Your task to perform on an android device: Open sound settings Image 0: 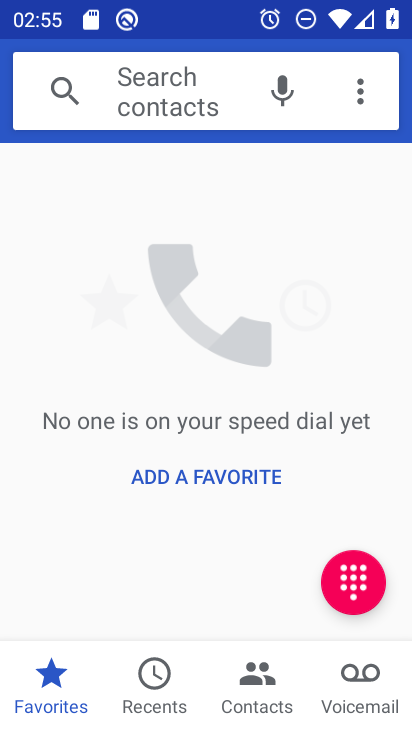
Step 0: press home button
Your task to perform on an android device: Open sound settings Image 1: 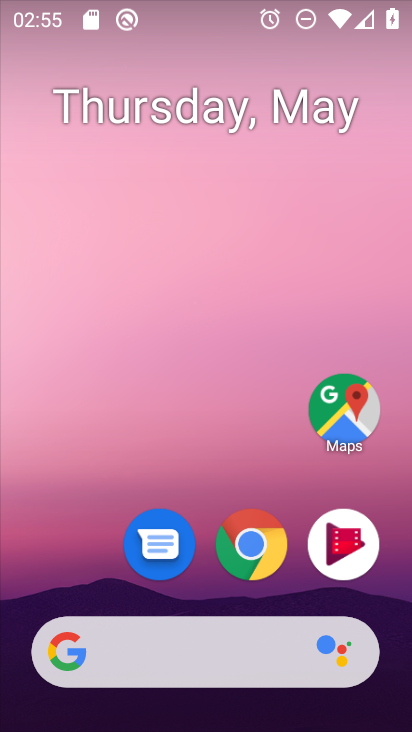
Step 1: drag from (32, 575) to (24, 146)
Your task to perform on an android device: Open sound settings Image 2: 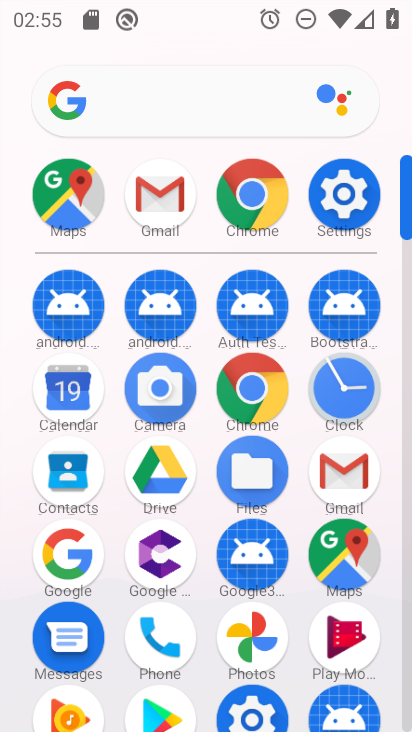
Step 2: drag from (105, 513) to (108, 283)
Your task to perform on an android device: Open sound settings Image 3: 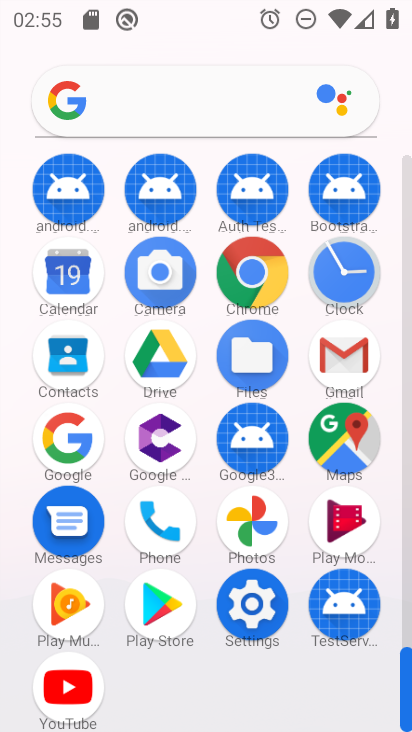
Step 3: click (240, 639)
Your task to perform on an android device: Open sound settings Image 4: 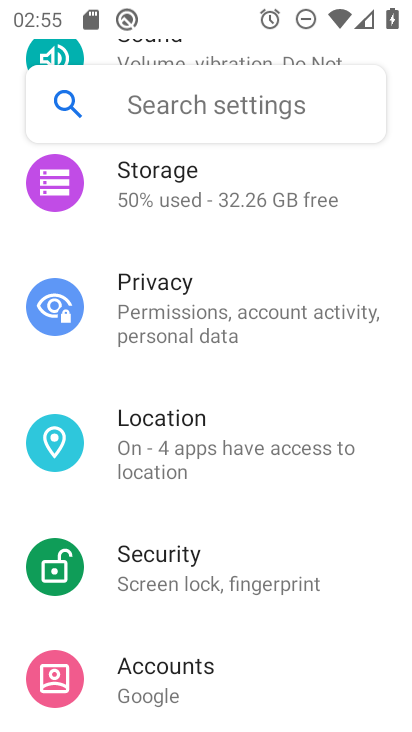
Step 4: drag from (351, 376) to (351, 467)
Your task to perform on an android device: Open sound settings Image 5: 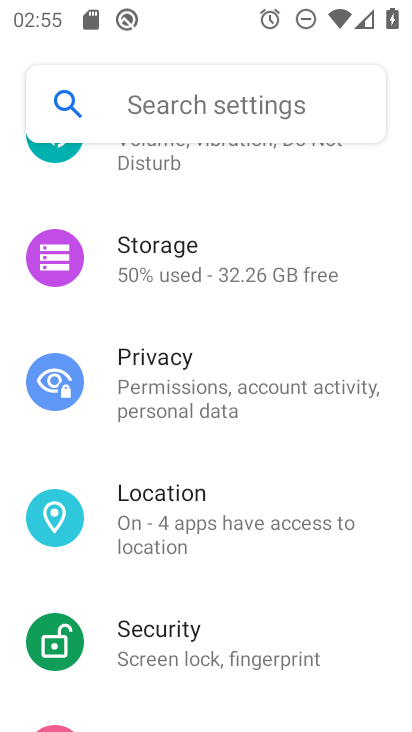
Step 5: drag from (346, 345) to (345, 437)
Your task to perform on an android device: Open sound settings Image 6: 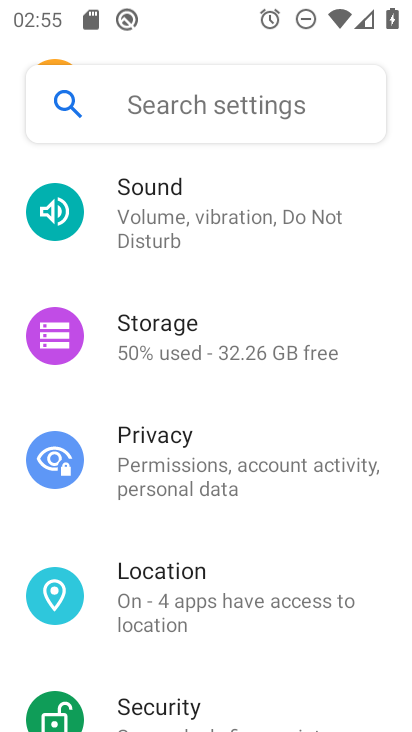
Step 6: drag from (355, 318) to (355, 413)
Your task to perform on an android device: Open sound settings Image 7: 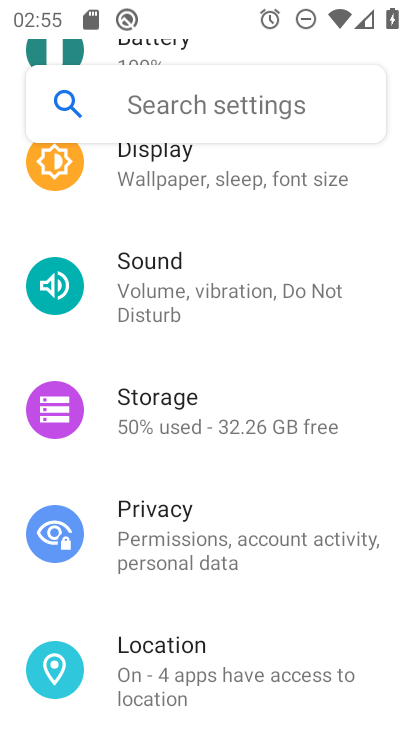
Step 7: drag from (353, 263) to (353, 365)
Your task to perform on an android device: Open sound settings Image 8: 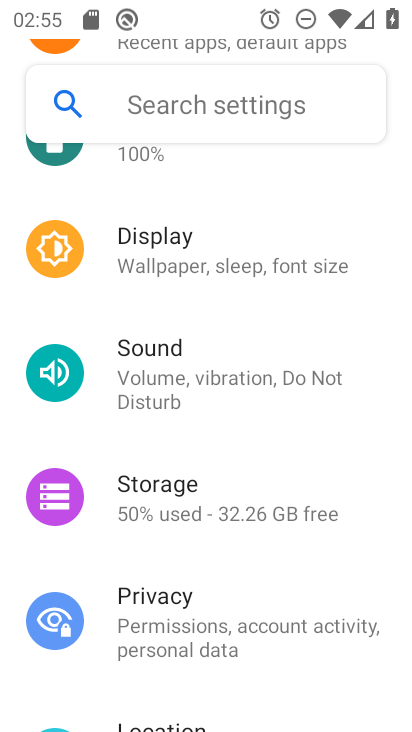
Step 8: drag from (356, 219) to (356, 323)
Your task to perform on an android device: Open sound settings Image 9: 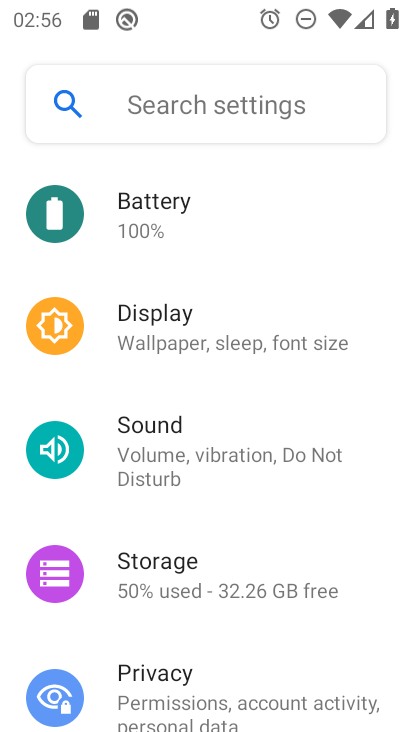
Step 9: drag from (358, 218) to (358, 304)
Your task to perform on an android device: Open sound settings Image 10: 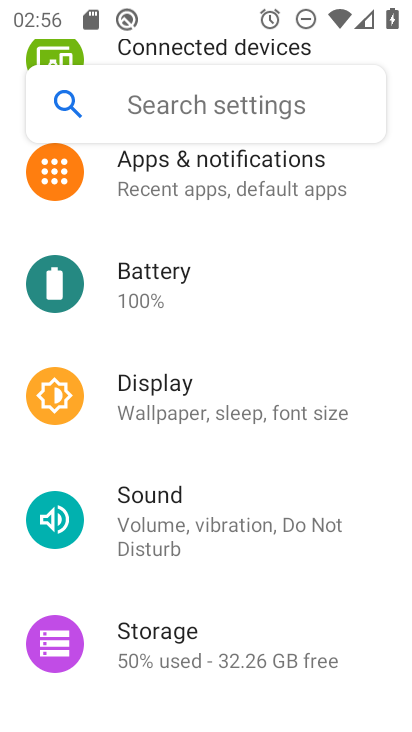
Step 10: drag from (370, 228) to (361, 321)
Your task to perform on an android device: Open sound settings Image 11: 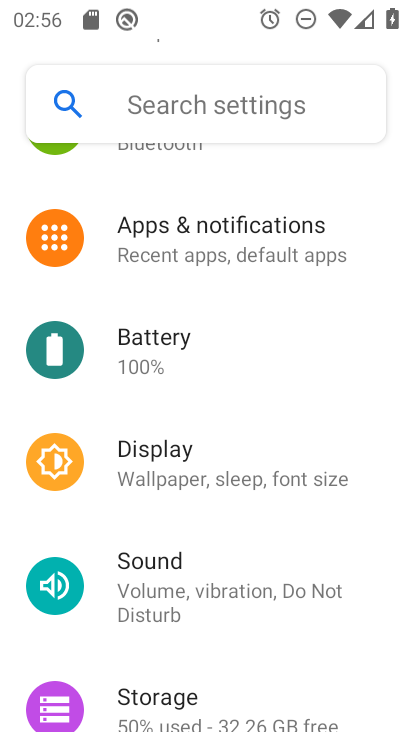
Step 11: drag from (355, 206) to (355, 310)
Your task to perform on an android device: Open sound settings Image 12: 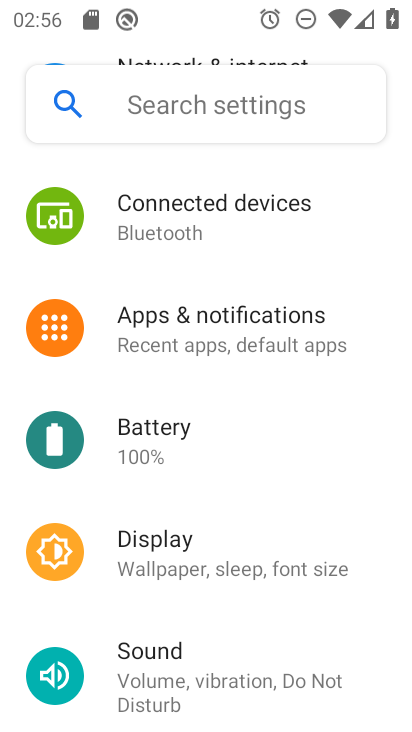
Step 12: drag from (359, 232) to (358, 341)
Your task to perform on an android device: Open sound settings Image 13: 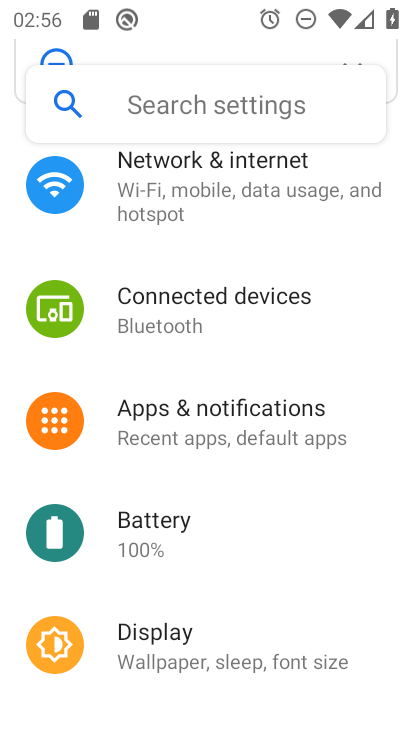
Step 13: drag from (361, 288) to (357, 375)
Your task to perform on an android device: Open sound settings Image 14: 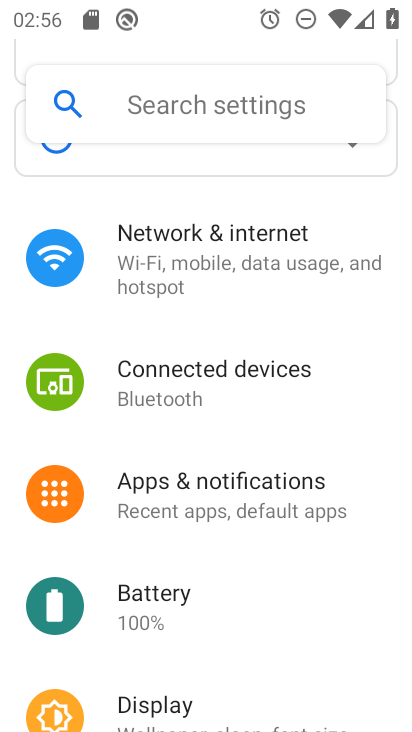
Step 14: drag from (347, 239) to (341, 349)
Your task to perform on an android device: Open sound settings Image 15: 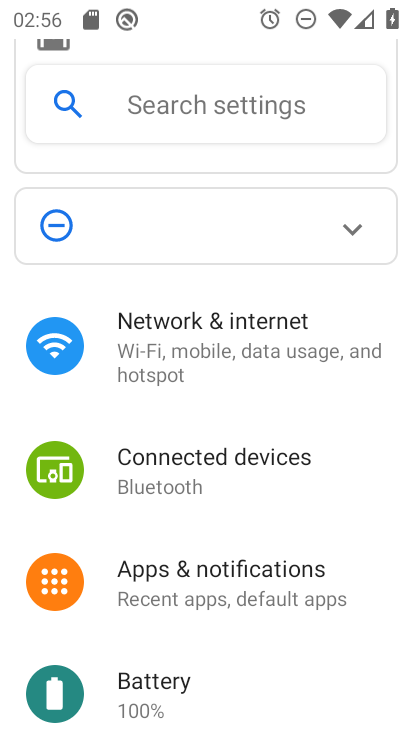
Step 15: drag from (304, 517) to (308, 416)
Your task to perform on an android device: Open sound settings Image 16: 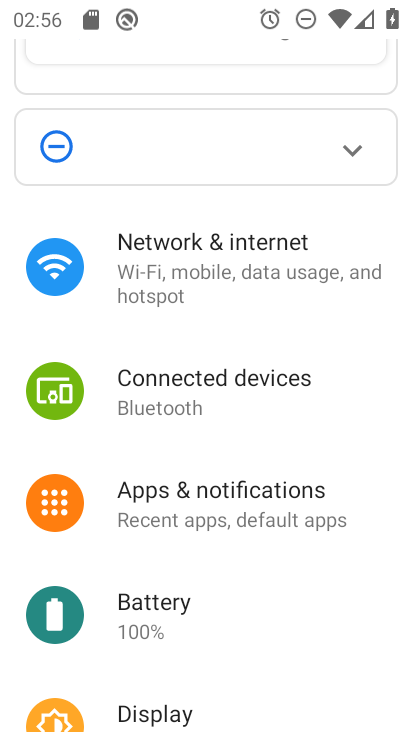
Step 16: drag from (322, 573) to (323, 470)
Your task to perform on an android device: Open sound settings Image 17: 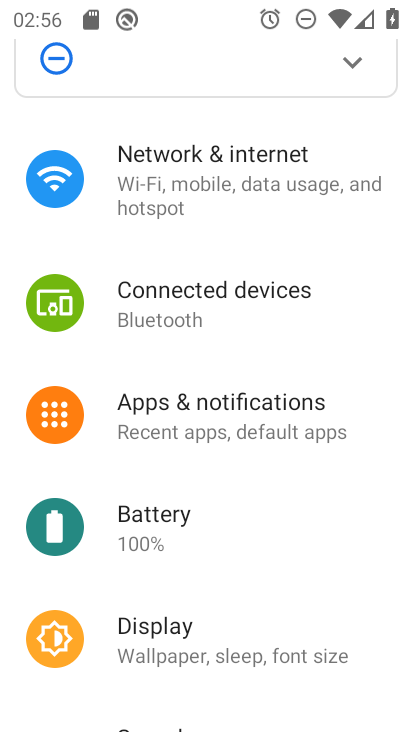
Step 17: drag from (321, 552) to (324, 467)
Your task to perform on an android device: Open sound settings Image 18: 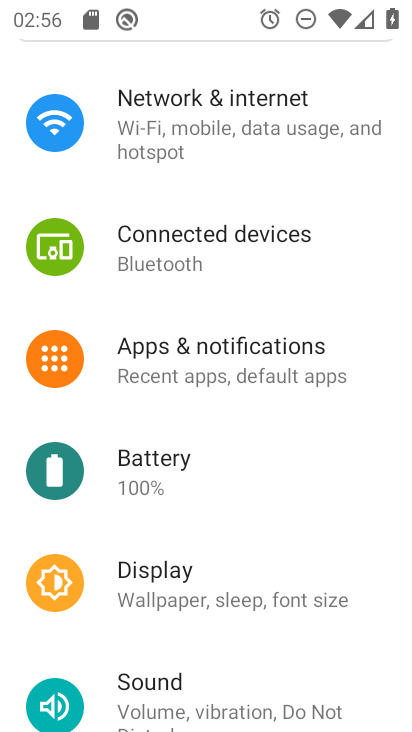
Step 18: drag from (324, 646) to (322, 510)
Your task to perform on an android device: Open sound settings Image 19: 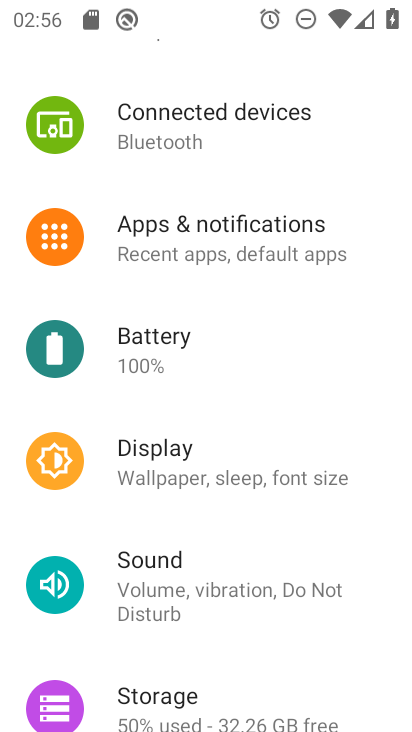
Step 19: drag from (309, 635) to (315, 532)
Your task to perform on an android device: Open sound settings Image 20: 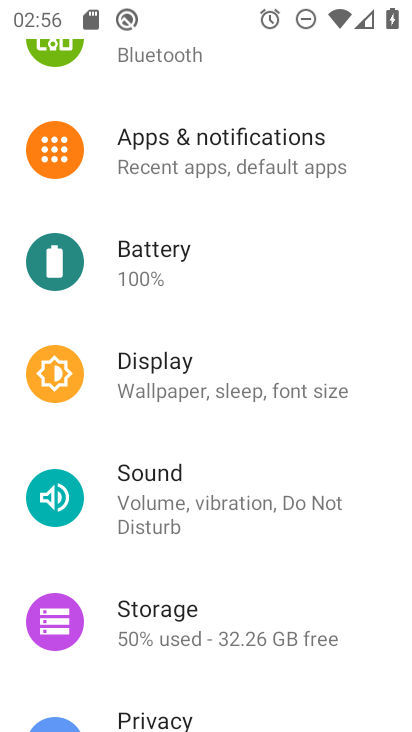
Step 20: drag from (323, 680) to (330, 570)
Your task to perform on an android device: Open sound settings Image 21: 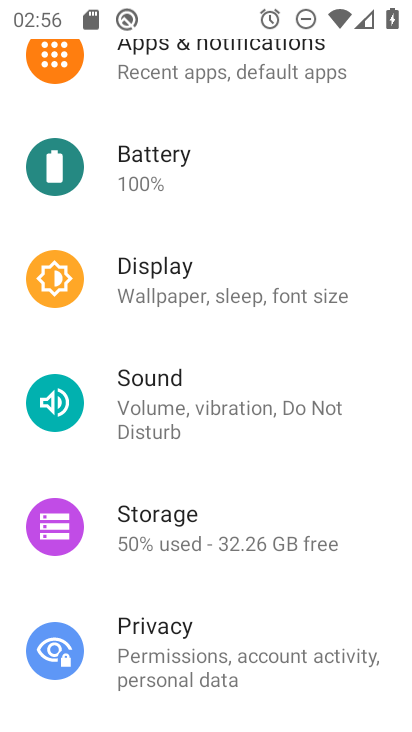
Step 21: drag from (320, 668) to (320, 545)
Your task to perform on an android device: Open sound settings Image 22: 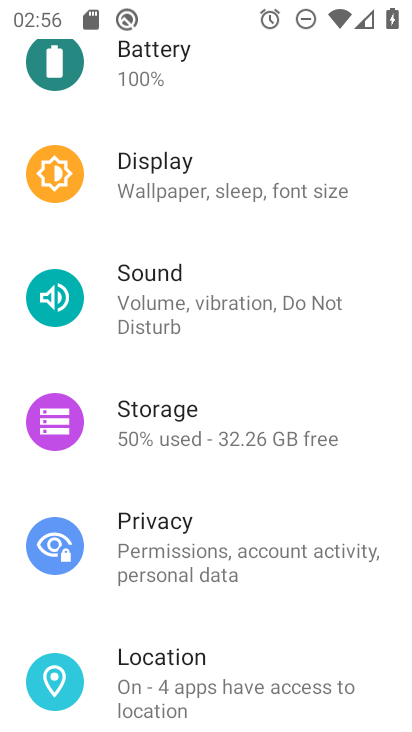
Step 22: drag from (332, 633) to (327, 477)
Your task to perform on an android device: Open sound settings Image 23: 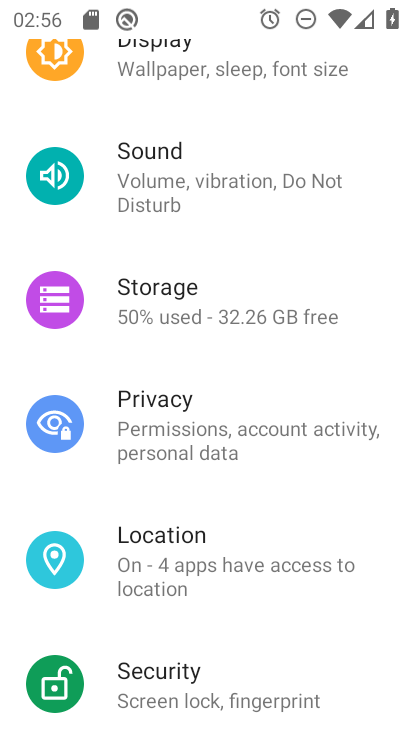
Step 23: click (274, 174)
Your task to perform on an android device: Open sound settings Image 24: 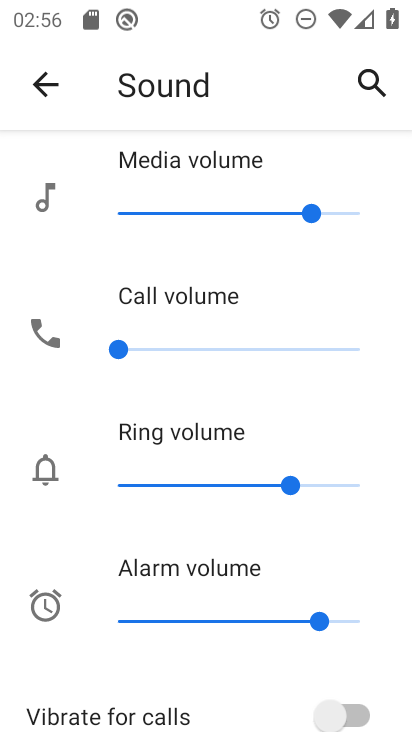
Step 24: task complete